Your task to perform on an android device: Open Chrome and go to settings Image 0: 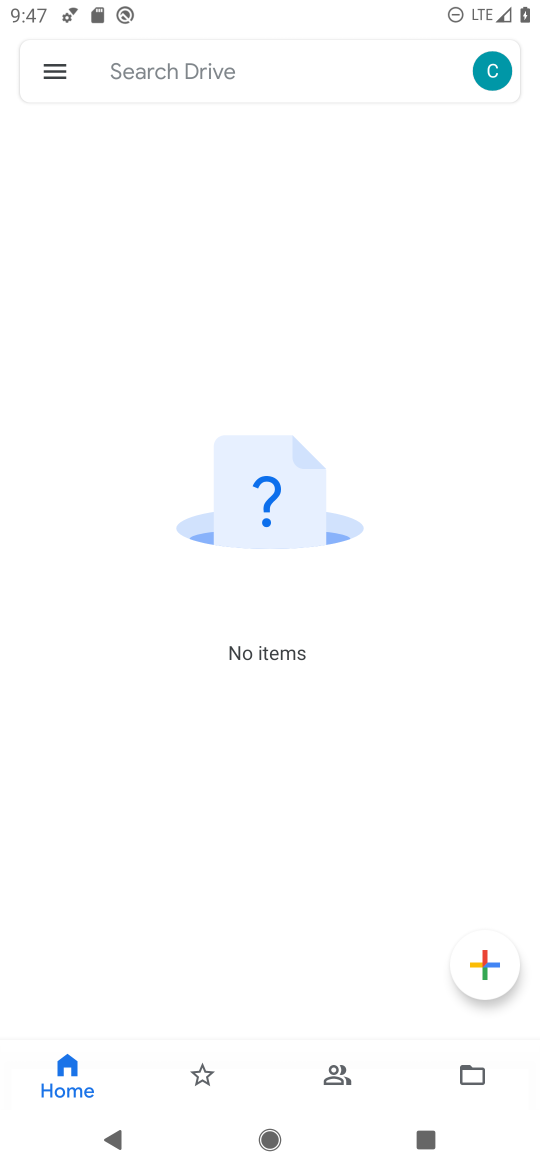
Step 0: press home button
Your task to perform on an android device: Open Chrome and go to settings Image 1: 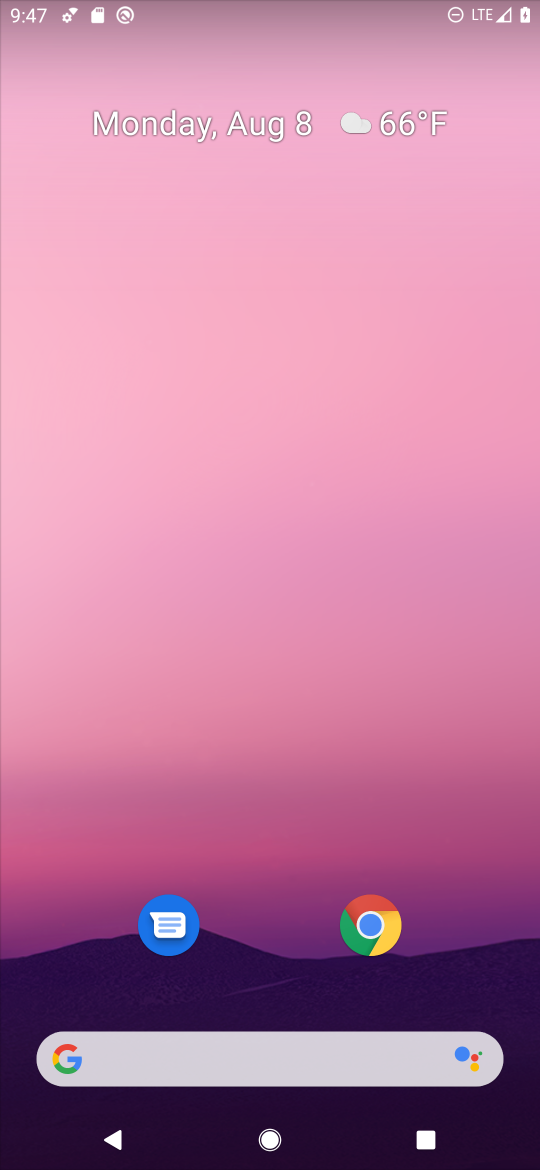
Step 1: drag from (282, 910) to (298, 124)
Your task to perform on an android device: Open Chrome and go to settings Image 2: 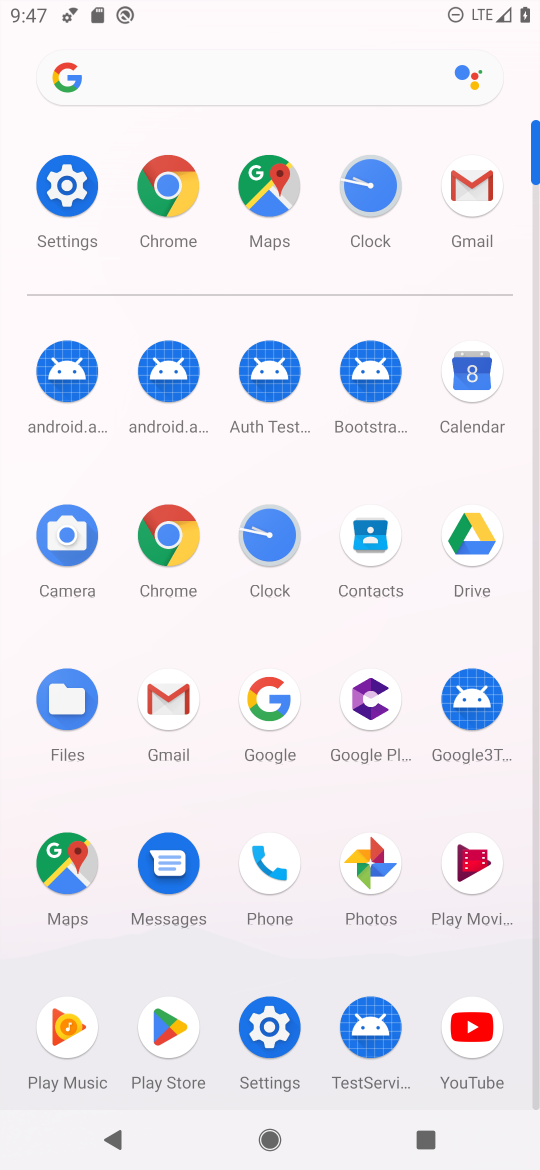
Step 2: click (170, 531)
Your task to perform on an android device: Open Chrome and go to settings Image 3: 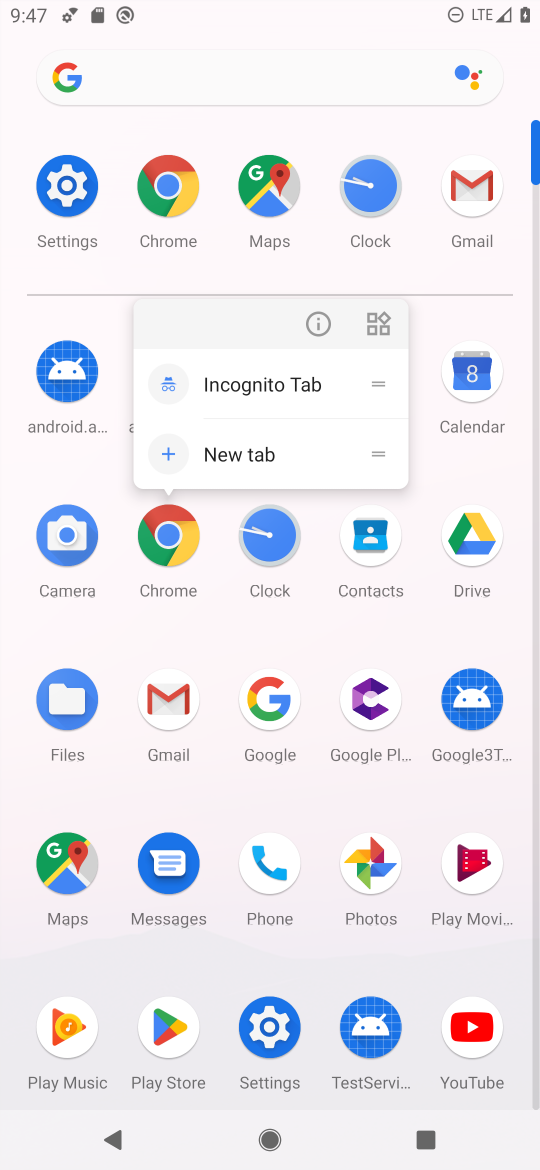
Step 3: click (170, 532)
Your task to perform on an android device: Open Chrome and go to settings Image 4: 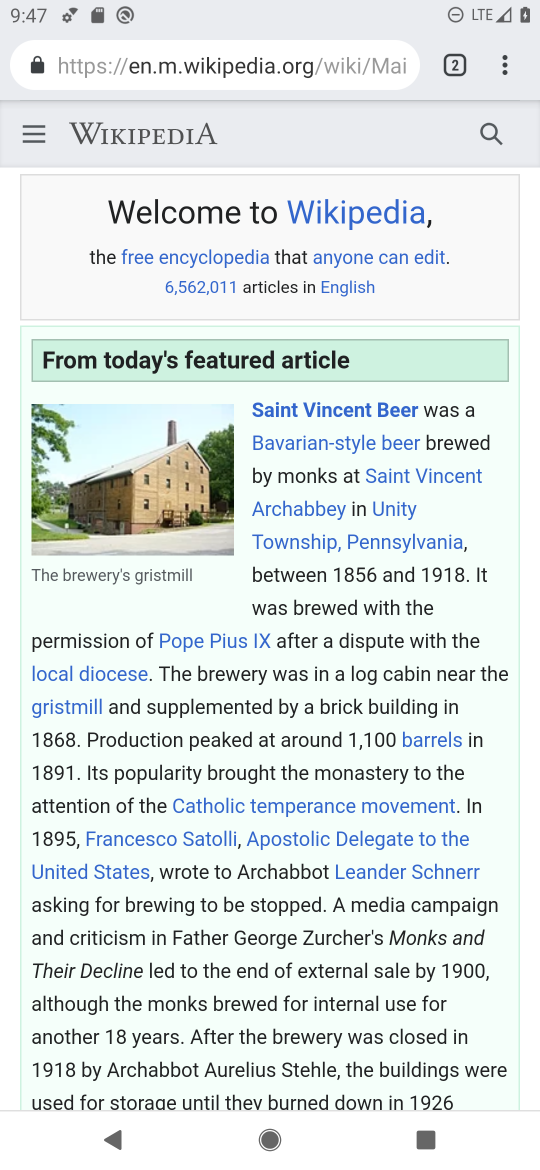
Step 4: task complete